Your task to perform on an android device: Open the stopwatch Image 0: 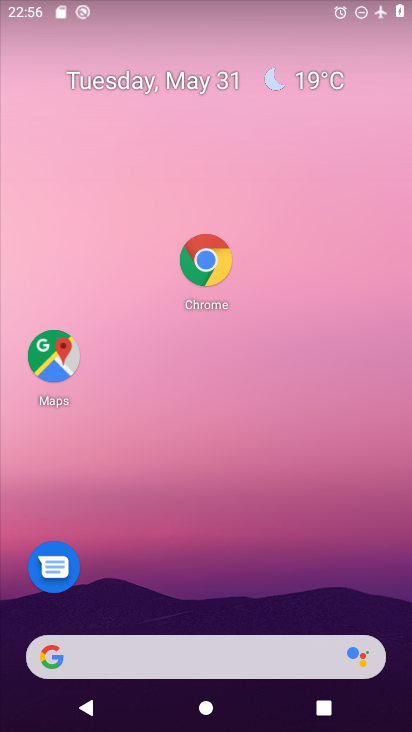
Step 0: drag from (232, 638) to (317, 75)
Your task to perform on an android device: Open the stopwatch Image 1: 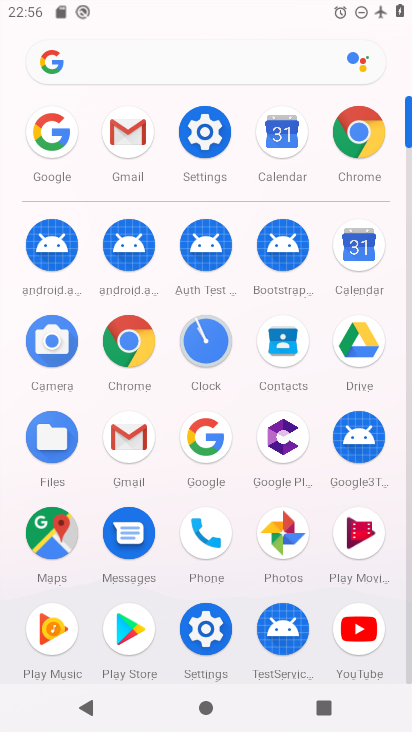
Step 1: click (212, 353)
Your task to perform on an android device: Open the stopwatch Image 2: 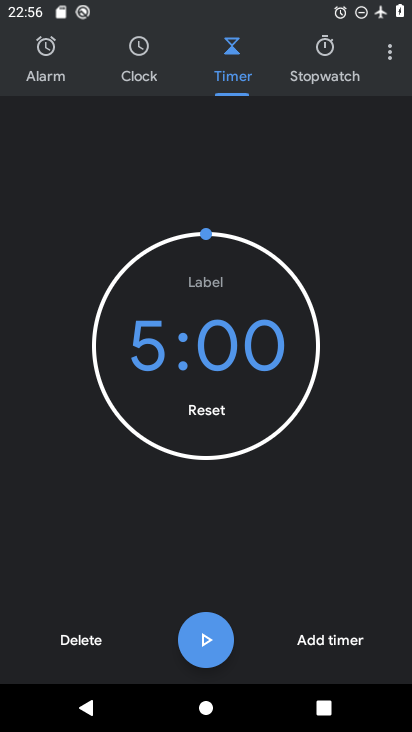
Step 2: click (341, 59)
Your task to perform on an android device: Open the stopwatch Image 3: 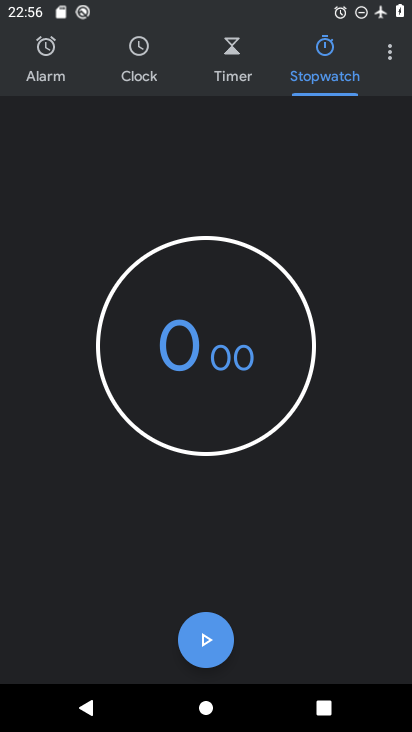
Step 3: task complete